Your task to perform on an android device: Open the stopwatch Image 0: 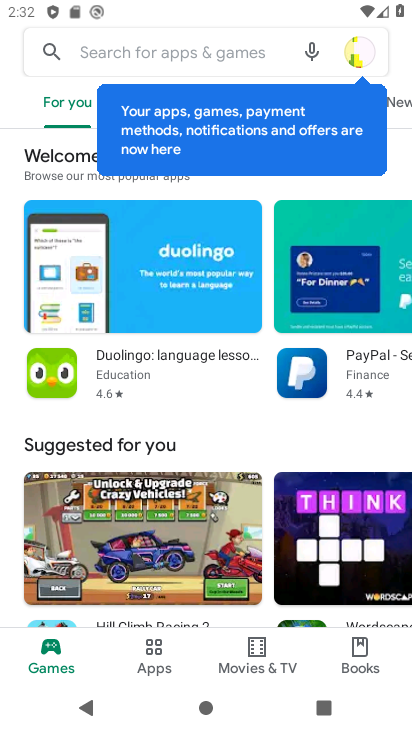
Step 0: press back button
Your task to perform on an android device: Open the stopwatch Image 1: 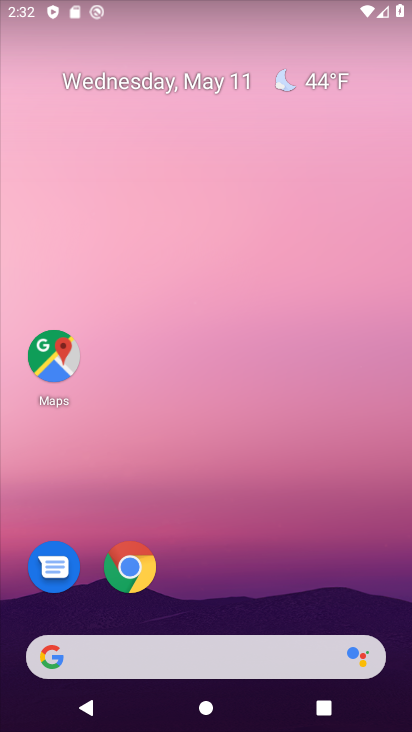
Step 1: drag from (223, 472) to (191, 0)
Your task to perform on an android device: Open the stopwatch Image 2: 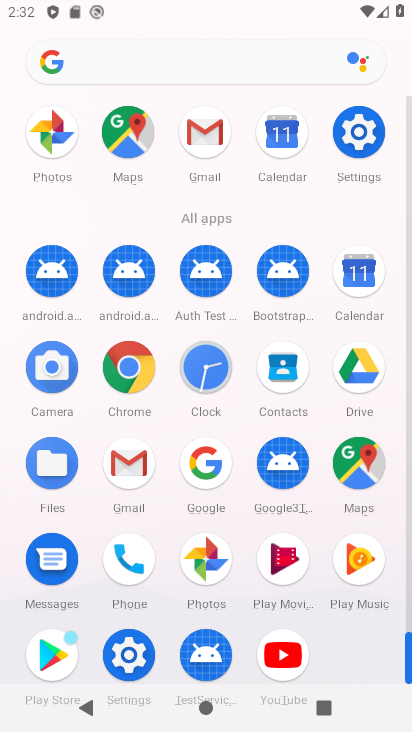
Step 2: drag from (1, 547) to (10, 238)
Your task to perform on an android device: Open the stopwatch Image 3: 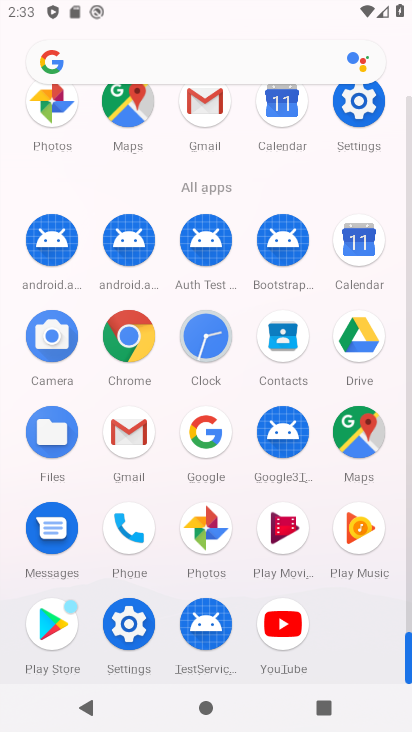
Step 3: click (204, 326)
Your task to perform on an android device: Open the stopwatch Image 4: 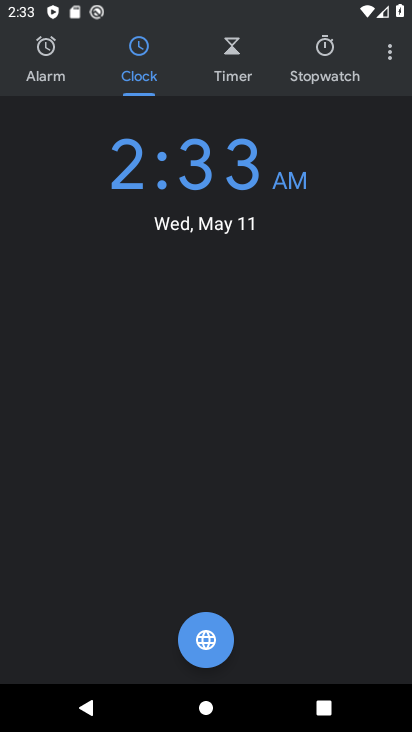
Step 4: click (325, 56)
Your task to perform on an android device: Open the stopwatch Image 5: 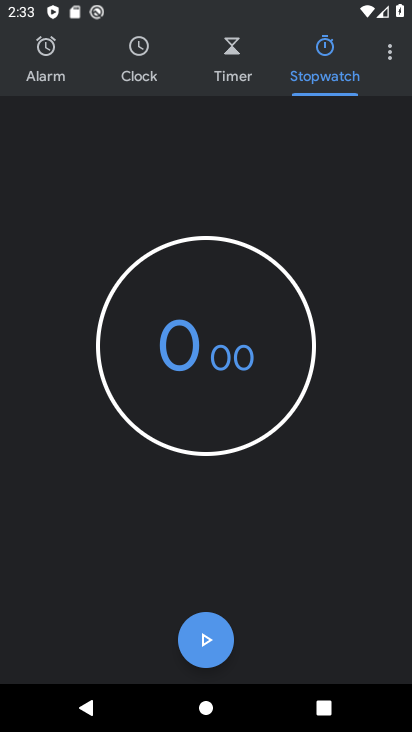
Step 5: task complete